Your task to perform on an android device: change text size in settings app Image 0: 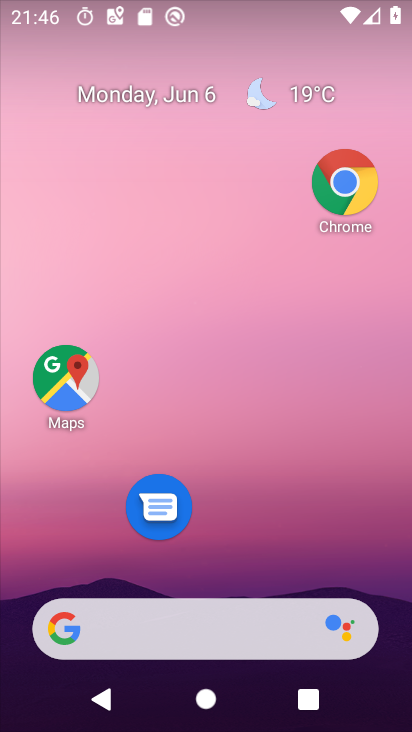
Step 0: drag from (387, 708) to (408, 277)
Your task to perform on an android device: change text size in settings app Image 1: 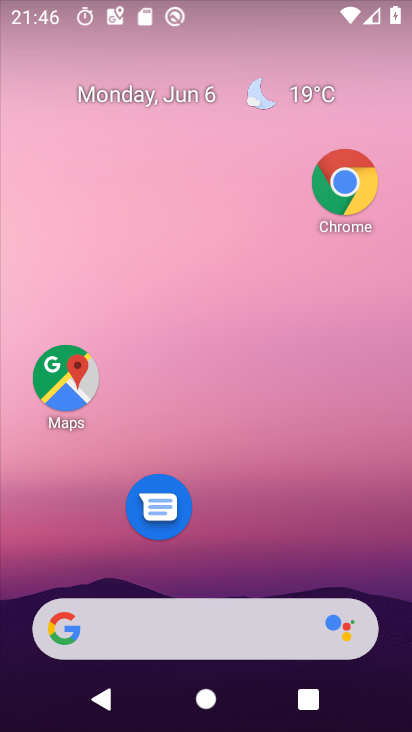
Step 1: drag from (380, 697) to (286, 168)
Your task to perform on an android device: change text size in settings app Image 2: 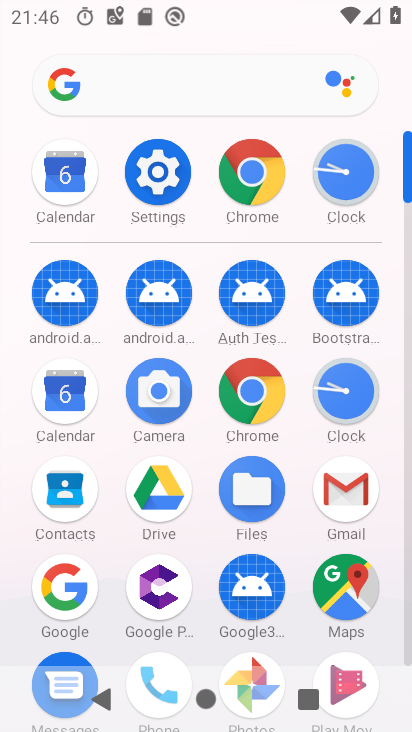
Step 2: click (156, 170)
Your task to perform on an android device: change text size in settings app Image 3: 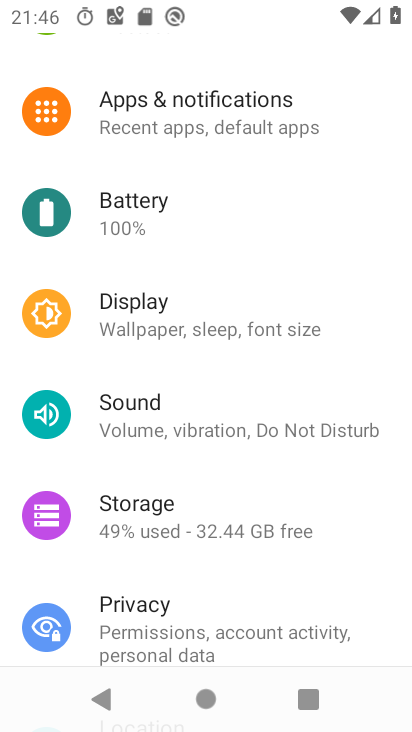
Step 3: drag from (142, 578) to (138, 441)
Your task to perform on an android device: change text size in settings app Image 4: 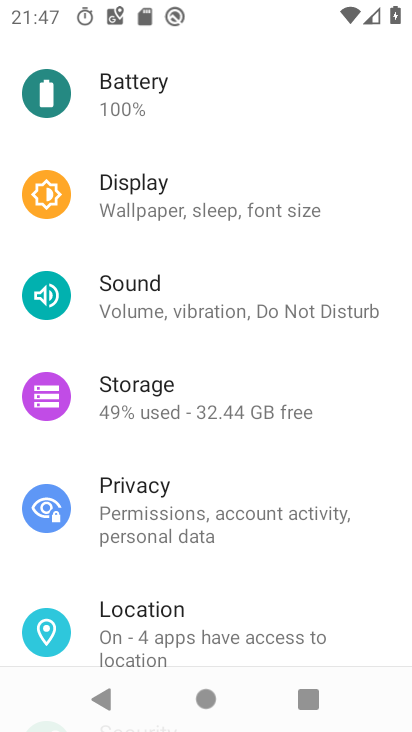
Step 4: click (183, 192)
Your task to perform on an android device: change text size in settings app Image 5: 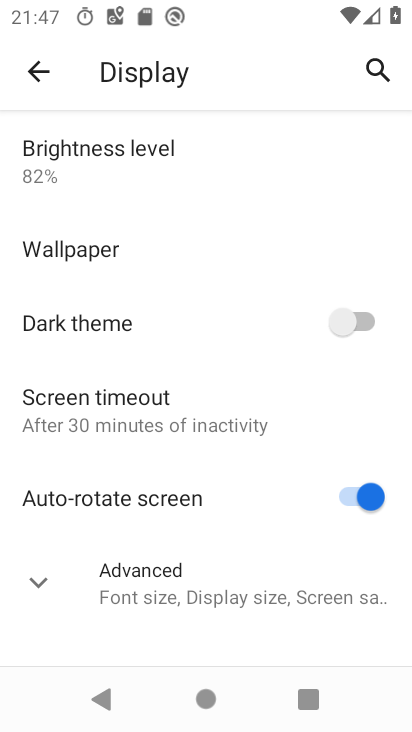
Step 5: click (140, 573)
Your task to perform on an android device: change text size in settings app Image 6: 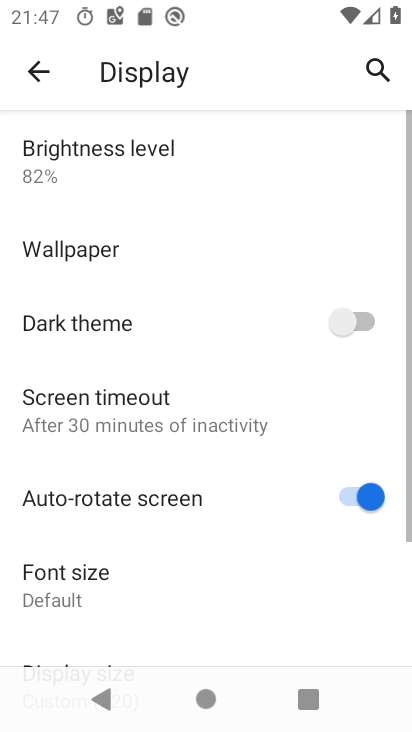
Step 6: click (140, 573)
Your task to perform on an android device: change text size in settings app Image 7: 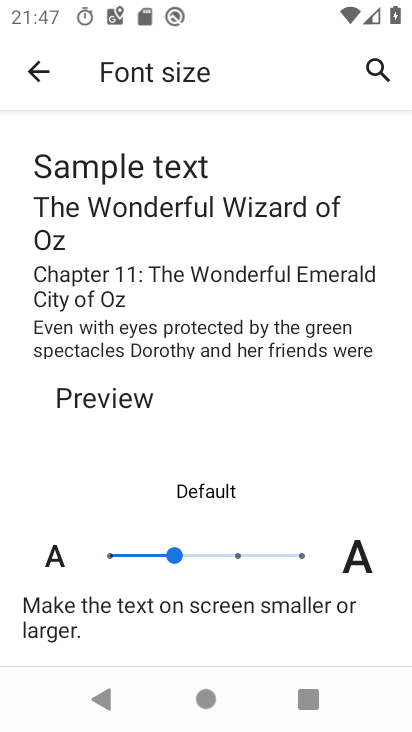
Step 7: click (332, 560)
Your task to perform on an android device: change text size in settings app Image 8: 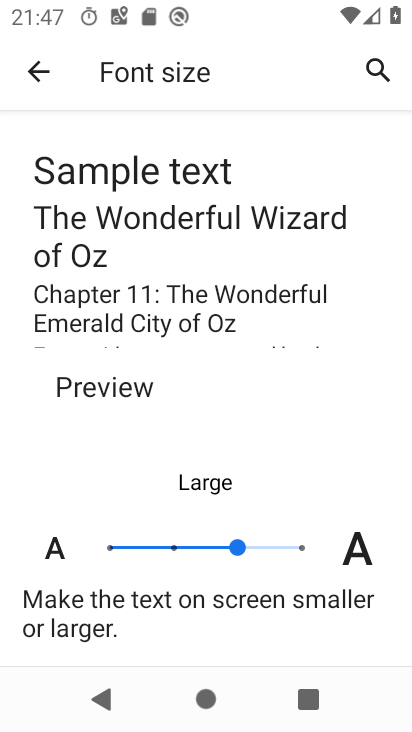
Step 8: task complete